Your task to perform on an android device: See recent photos Image 0: 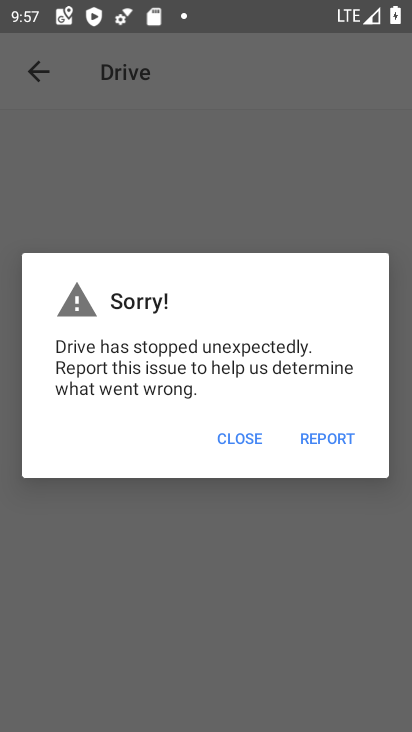
Step 0: press home button
Your task to perform on an android device: See recent photos Image 1: 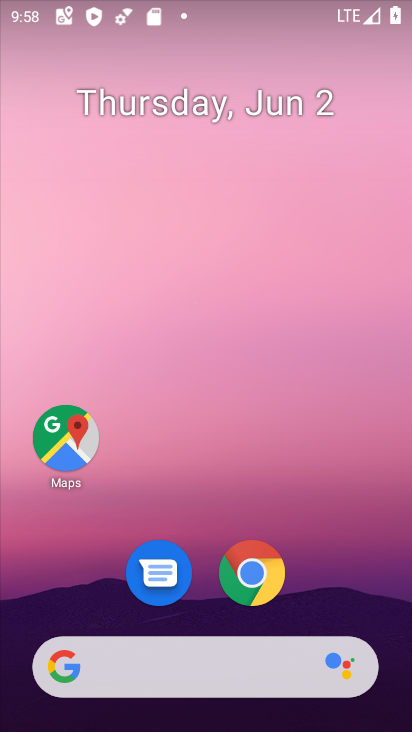
Step 1: drag from (349, 601) to (387, 43)
Your task to perform on an android device: See recent photos Image 2: 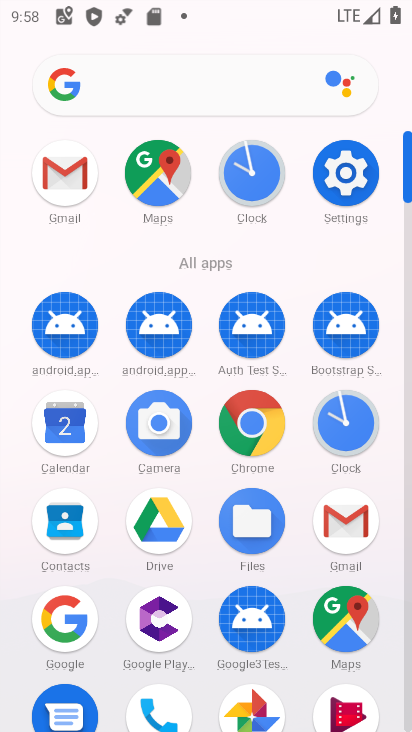
Step 2: click (247, 704)
Your task to perform on an android device: See recent photos Image 3: 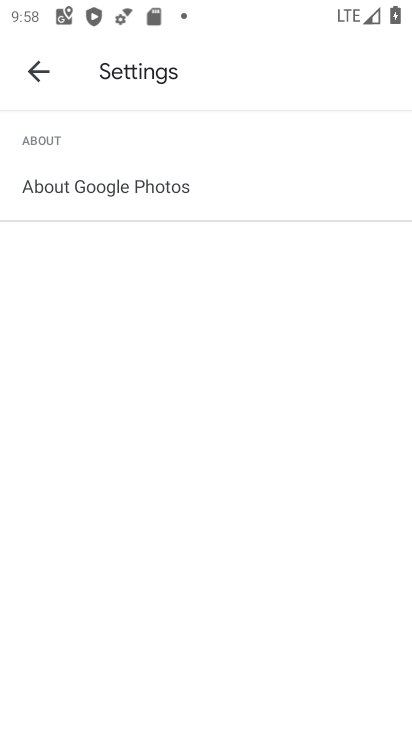
Step 3: click (42, 72)
Your task to perform on an android device: See recent photos Image 4: 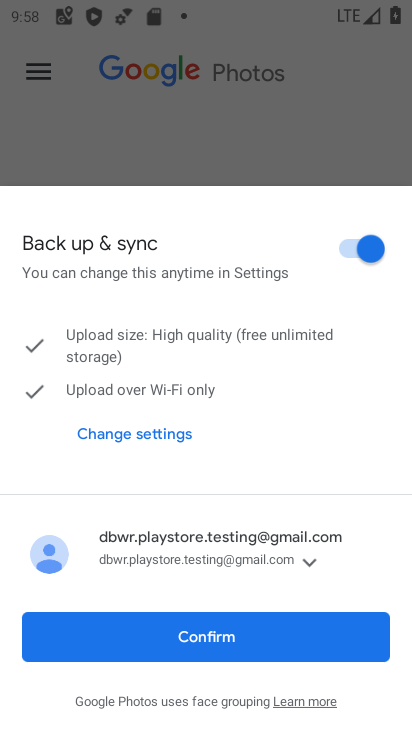
Step 4: click (299, 631)
Your task to perform on an android device: See recent photos Image 5: 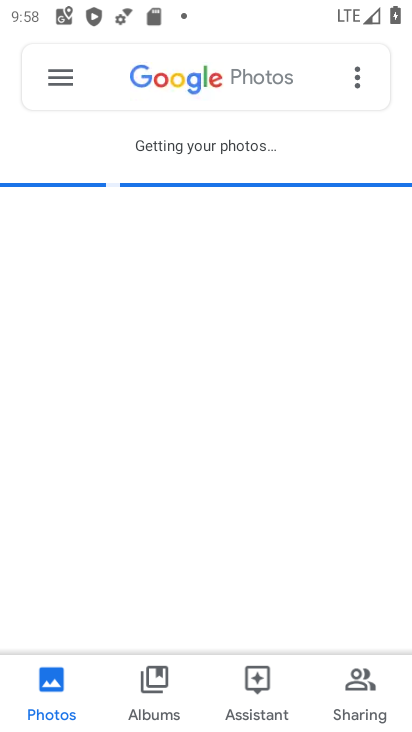
Step 5: click (34, 63)
Your task to perform on an android device: See recent photos Image 6: 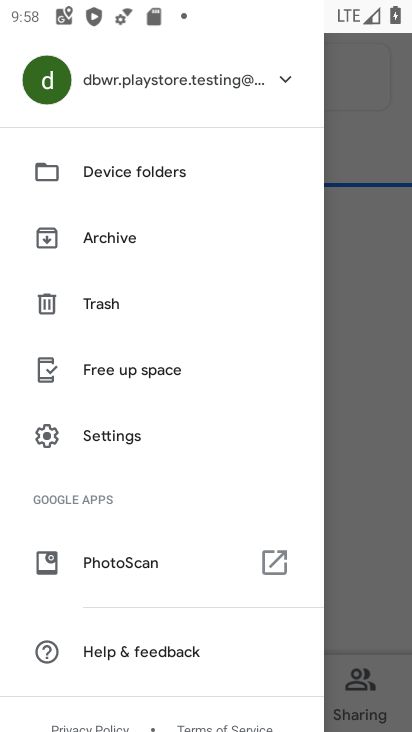
Step 6: click (364, 381)
Your task to perform on an android device: See recent photos Image 7: 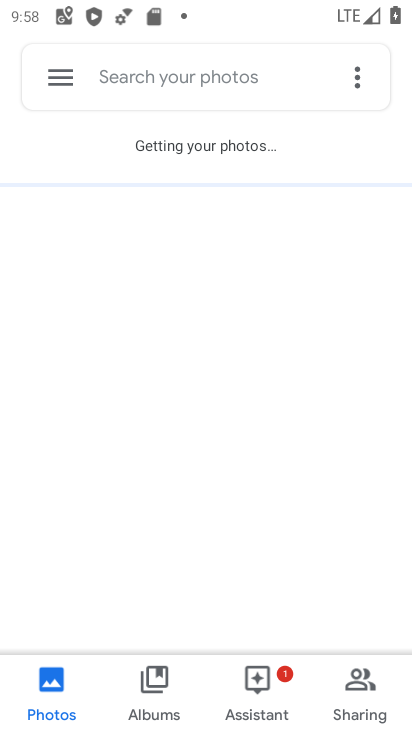
Step 7: click (267, 80)
Your task to perform on an android device: See recent photos Image 8: 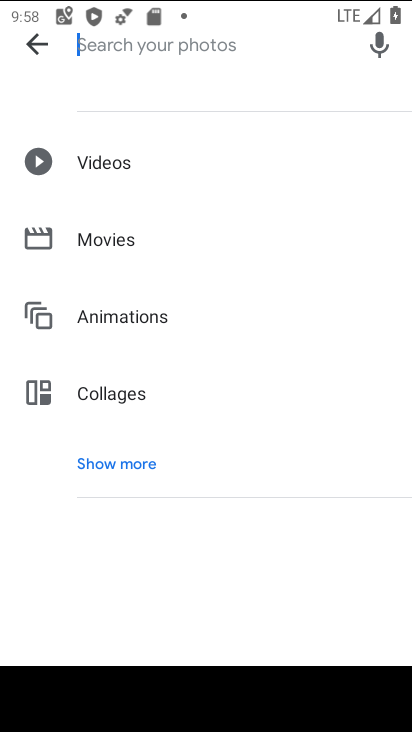
Step 8: type "recent photos"
Your task to perform on an android device: See recent photos Image 9: 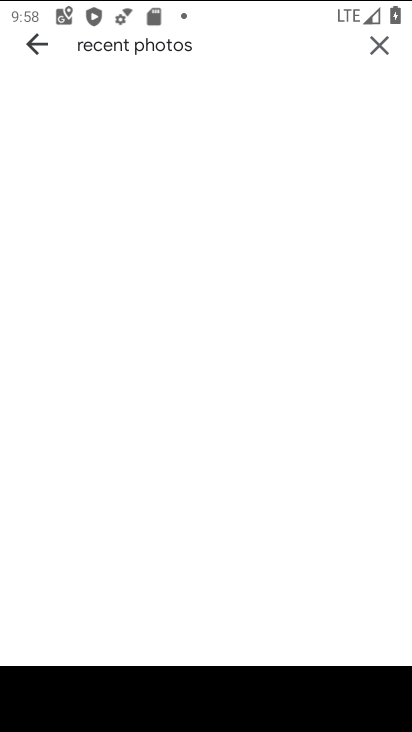
Step 9: task complete